Your task to perform on an android device: turn off data saver in the chrome app Image 0: 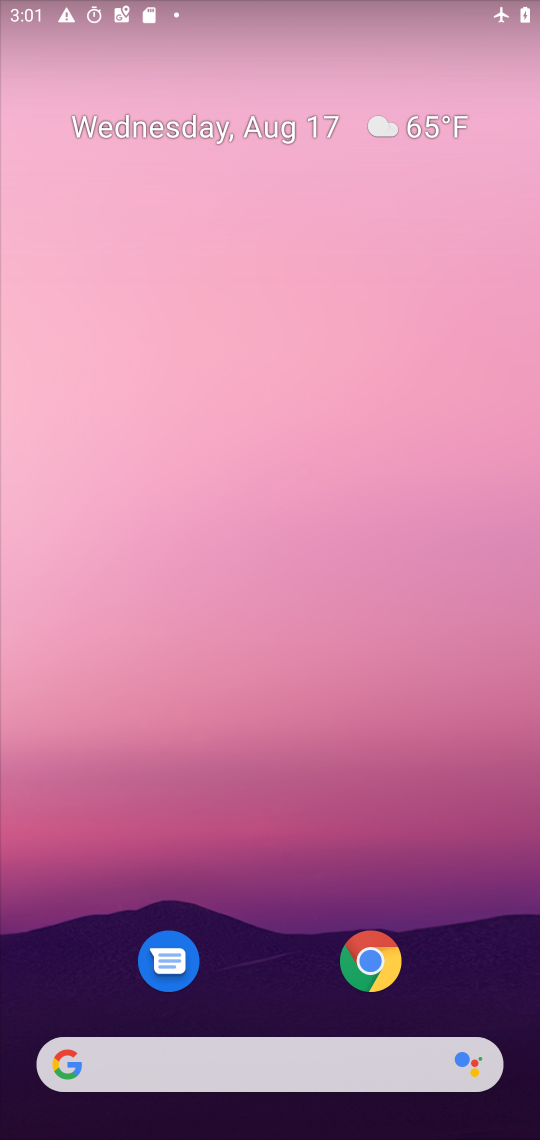
Step 0: drag from (301, 818) to (293, 15)
Your task to perform on an android device: turn off data saver in the chrome app Image 1: 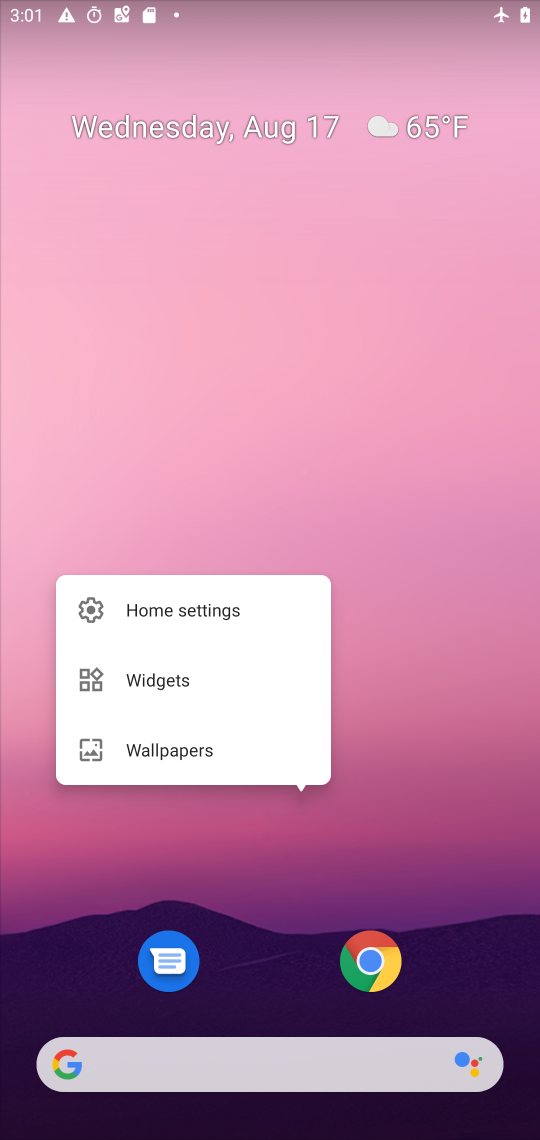
Step 1: click (387, 353)
Your task to perform on an android device: turn off data saver in the chrome app Image 2: 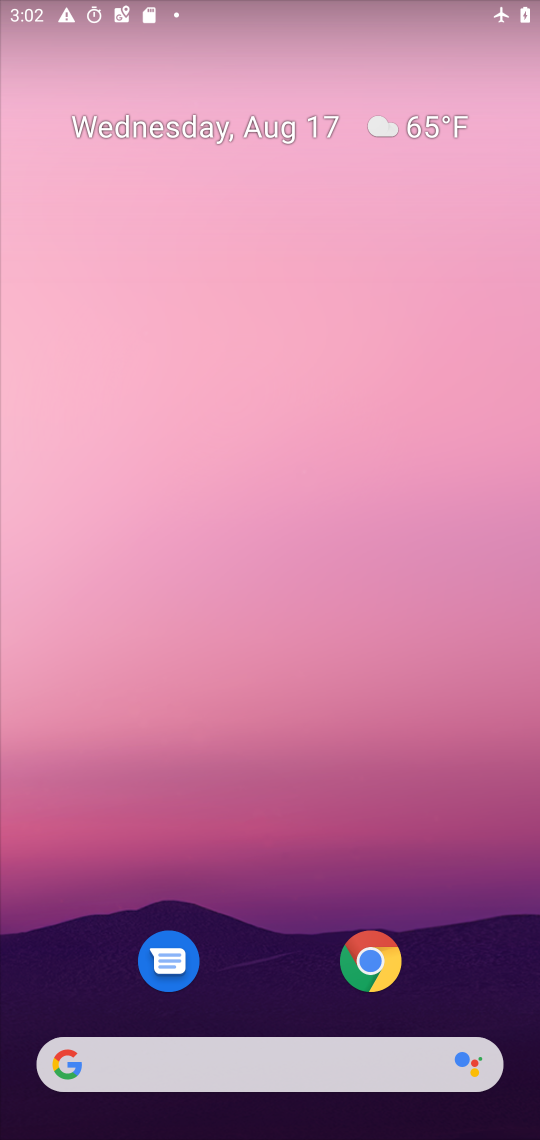
Step 2: drag from (357, 401) to (348, 5)
Your task to perform on an android device: turn off data saver in the chrome app Image 3: 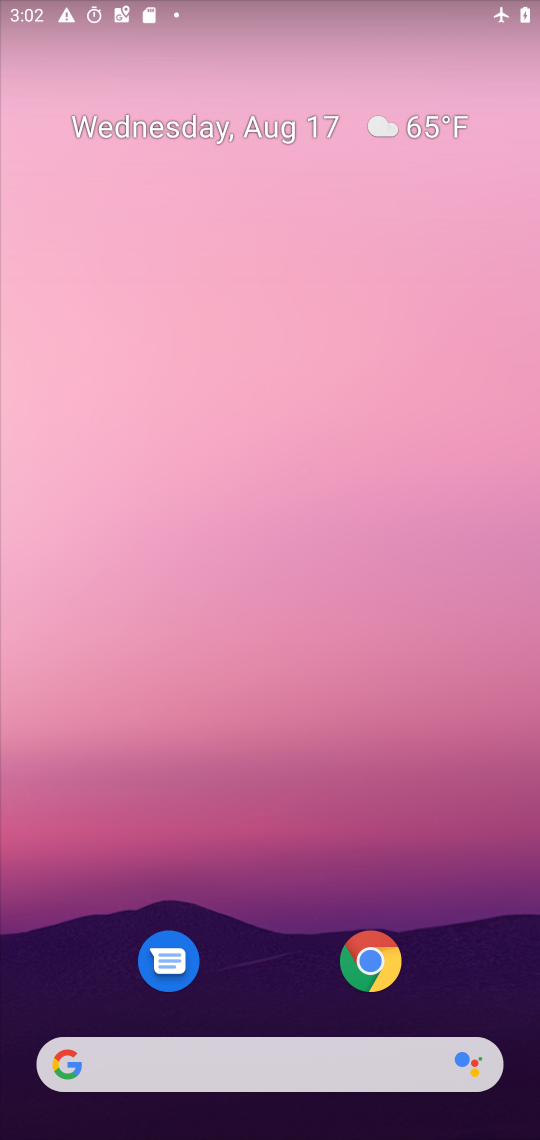
Step 3: drag from (216, 1021) to (465, 33)
Your task to perform on an android device: turn off data saver in the chrome app Image 4: 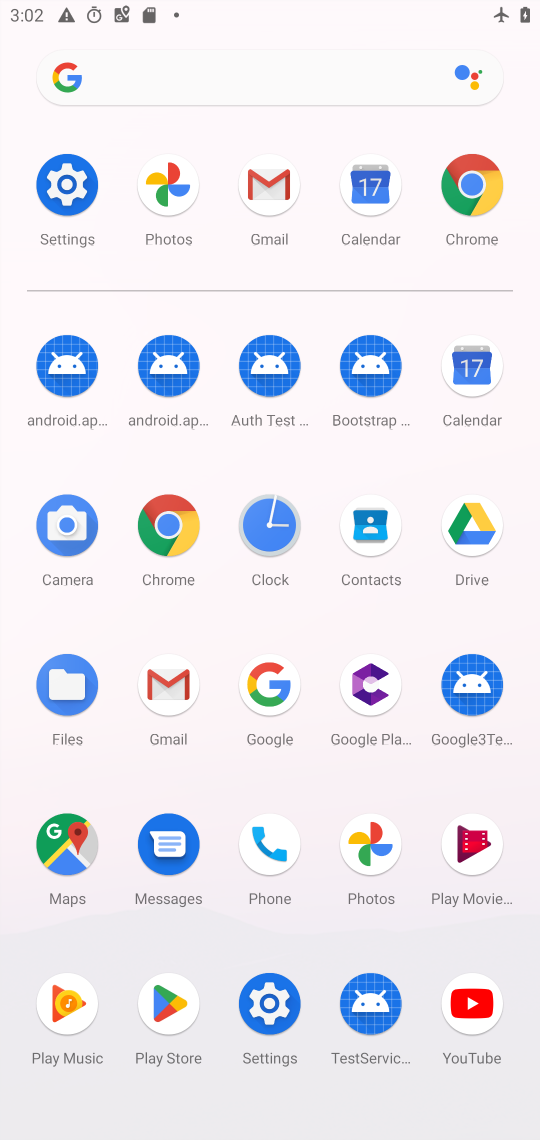
Step 4: click (181, 537)
Your task to perform on an android device: turn off data saver in the chrome app Image 5: 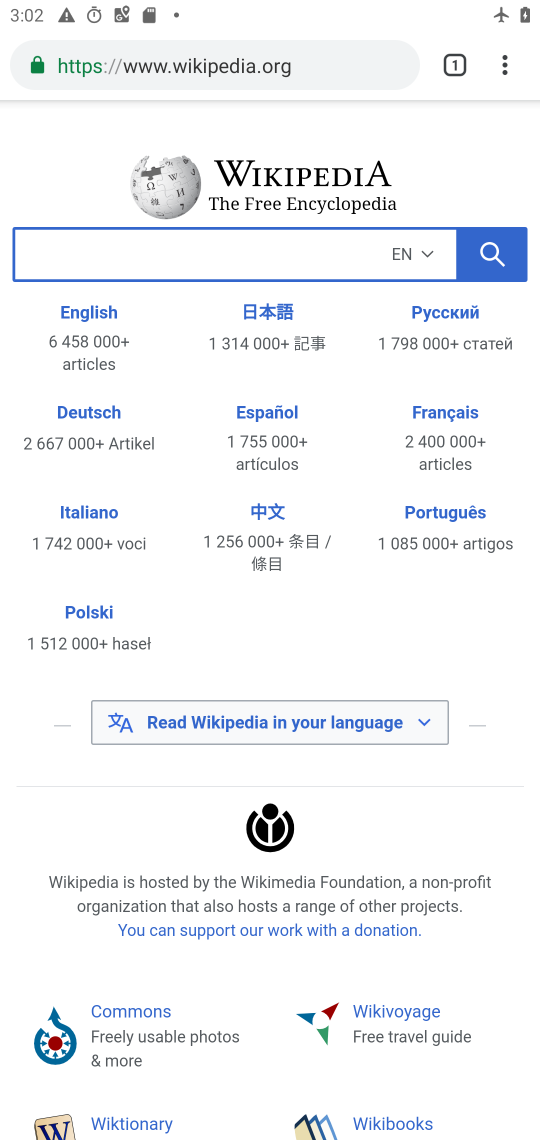
Step 5: click (509, 71)
Your task to perform on an android device: turn off data saver in the chrome app Image 6: 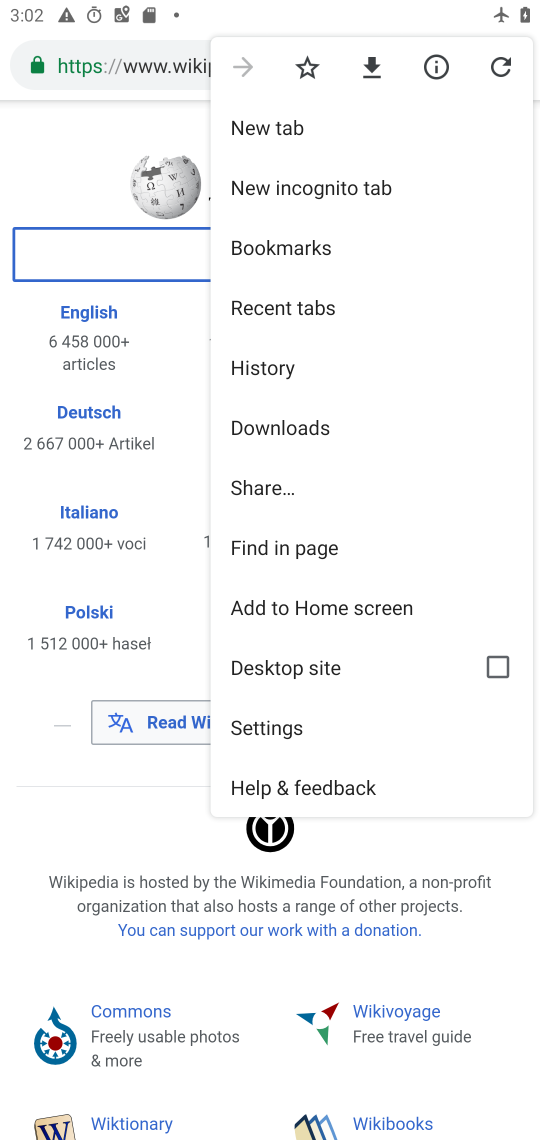
Step 6: click (289, 728)
Your task to perform on an android device: turn off data saver in the chrome app Image 7: 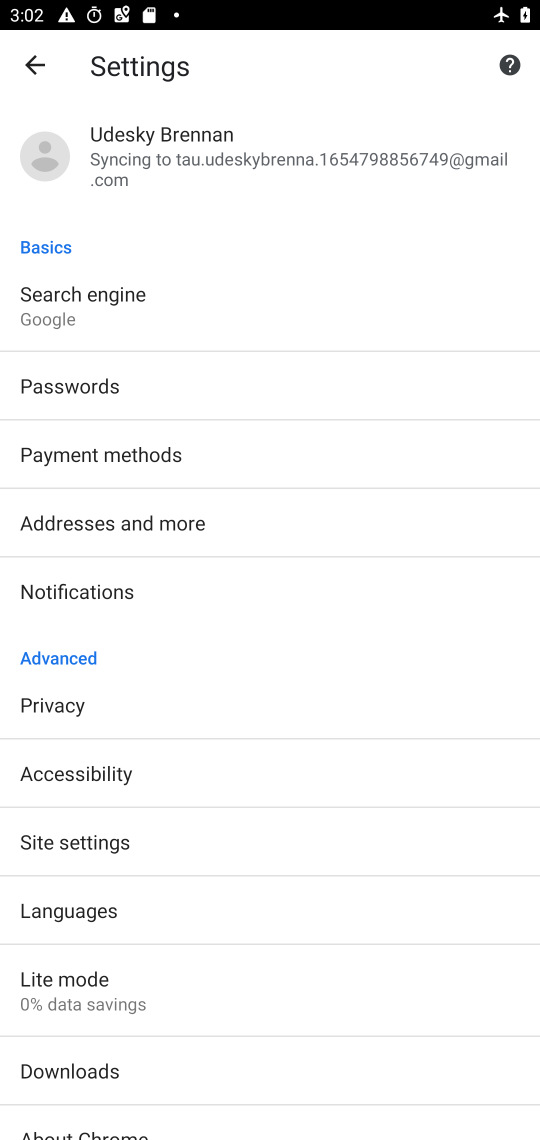
Step 7: click (168, 1006)
Your task to perform on an android device: turn off data saver in the chrome app Image 8: 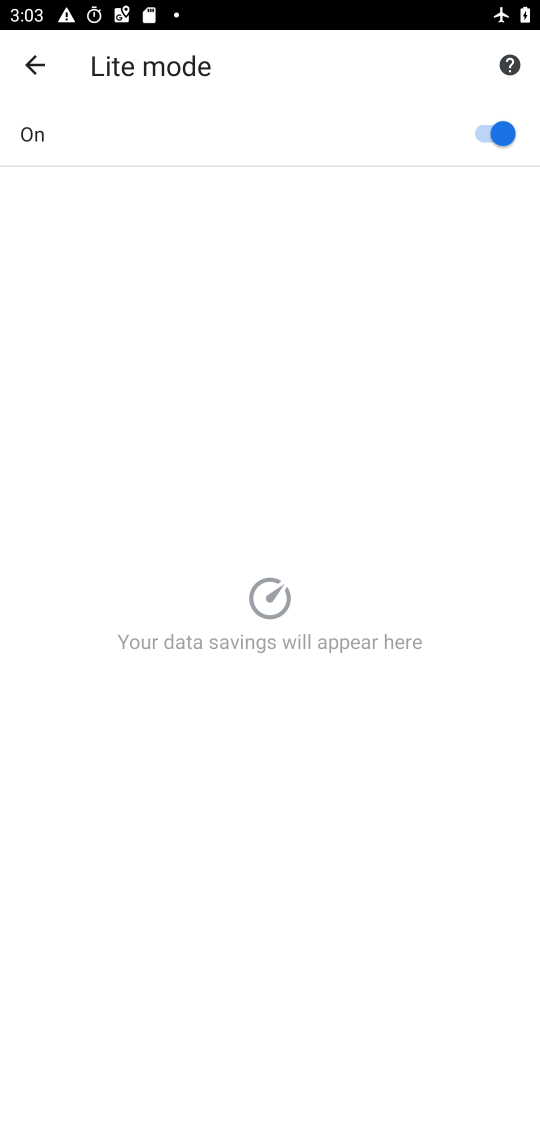
Step 8: click (471, 124)
Your task to perform on an android device: turn off data saver in the chrome app Image 9: 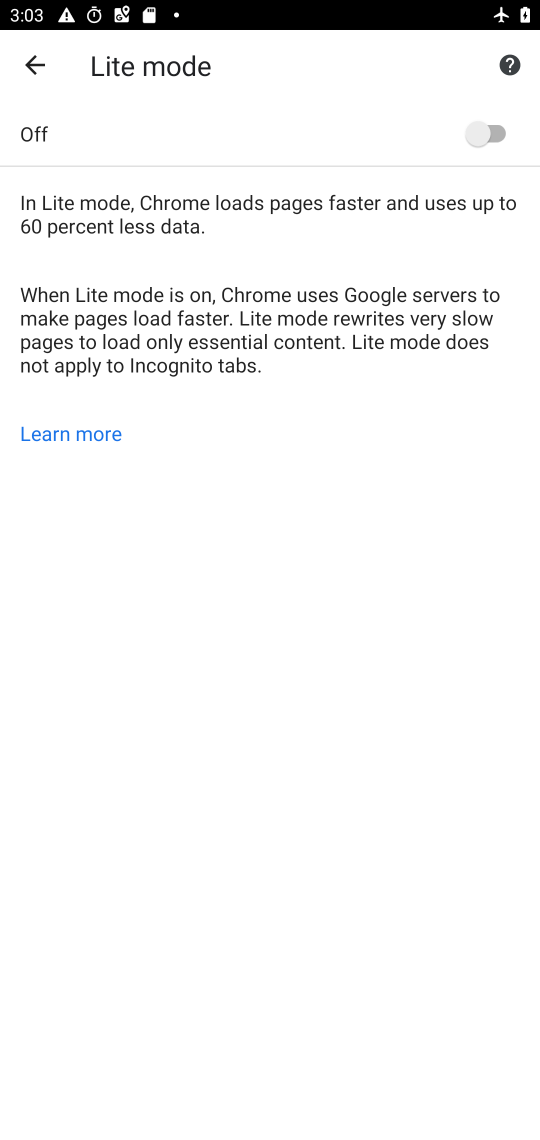
Step 9: task complete